Your task to perform on an android device: Go to notification settings Image 0: 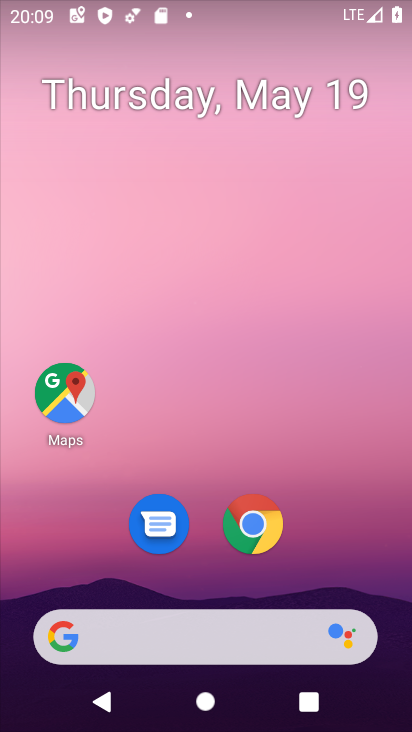
Step 0: drag from (325, 566) to (327, 75)
Your task to perform on an android device: Go to notification settings Image 1: 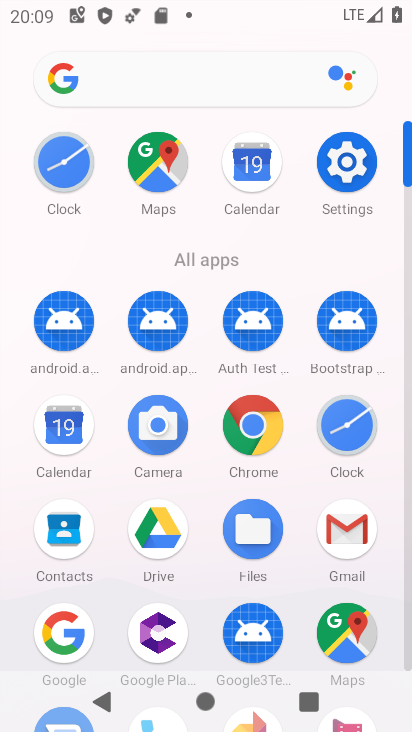
Step 1: click (347, 169)
Your task to perform on an android device: Go to notification settings Image 2: 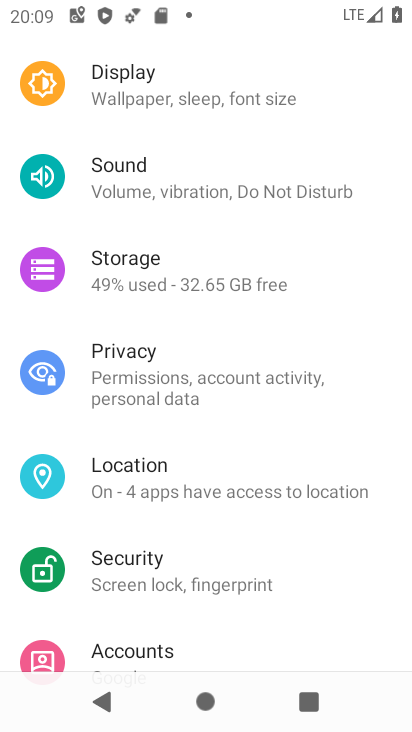
Step 2: drag from (253, 234) to (203, 572)
Your task to perform on an android device: Go to notification settings Image 3: 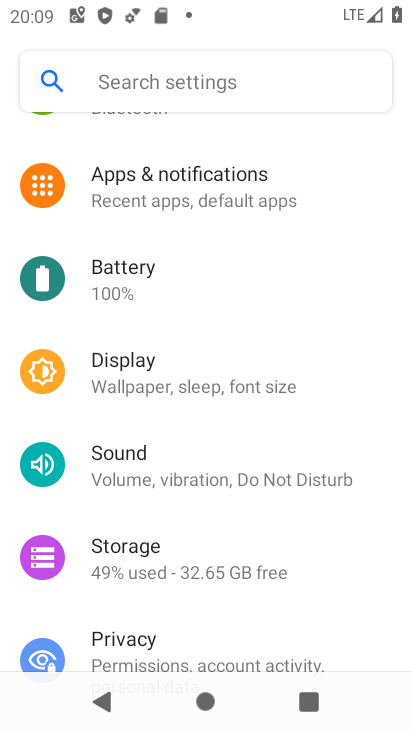
Step 3: click (243, 182)
Your task to perform on an android device: Go to notification settings Image 4: 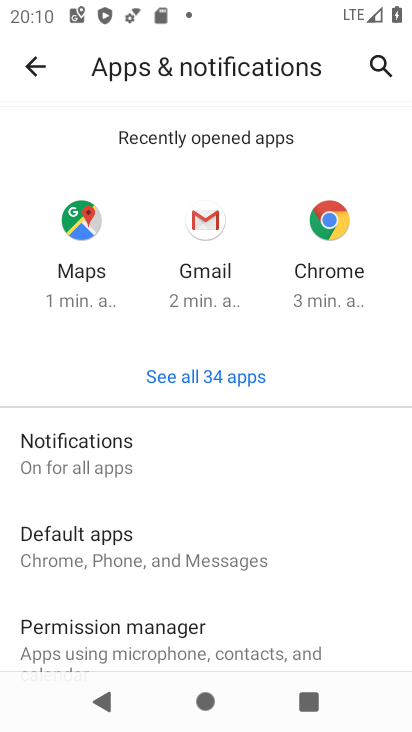
Step 4: click (101, 452)
Your task to perform on an android device: Go to notification settings Image 5: 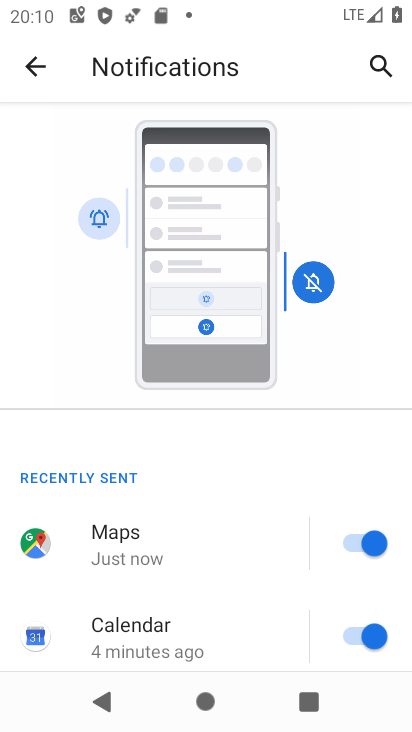
Step 5: task complete